Your task to perform on an android device: open chrome and create a bookmark for the current page Image 0: 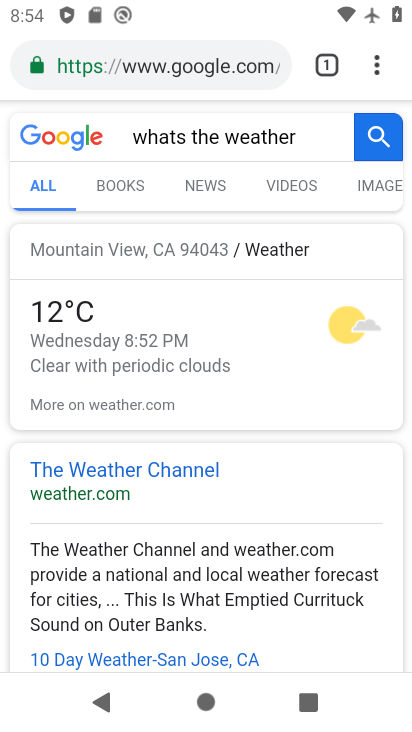
Step 0: drag from (377, 73) to (169, 66)
Your task to perform on an android device: open chrome and create a bookmark for the current page Image 1: 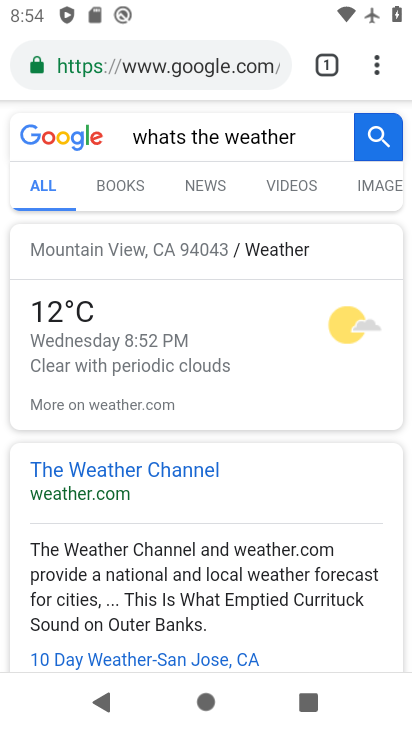
Step 1: task complete